Your task to perform on an android device: Open calendar and show me the first week of next month Image 0: 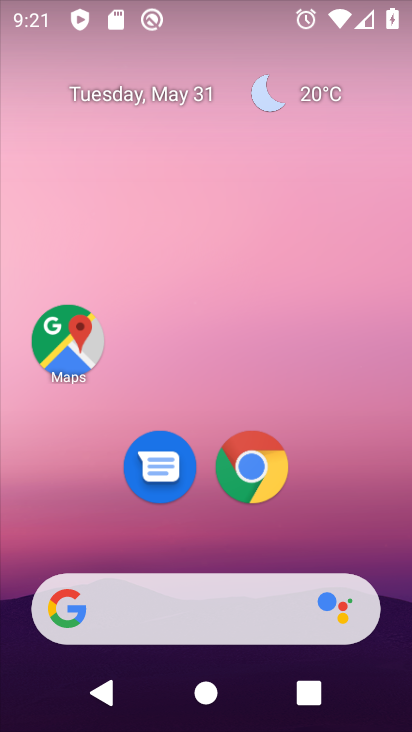
Step 0: drag from (186, 529) to (204, 128)
Your task to perform on an android device: Open calendar and show me the first week of next month Image 1: 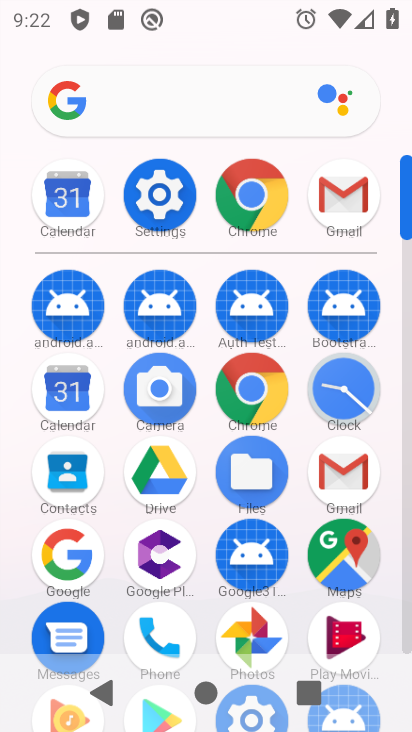
Step 1: click (84, 388)
Your task to perform on an android device: Open calendar and show me the first week of next month Image 2: 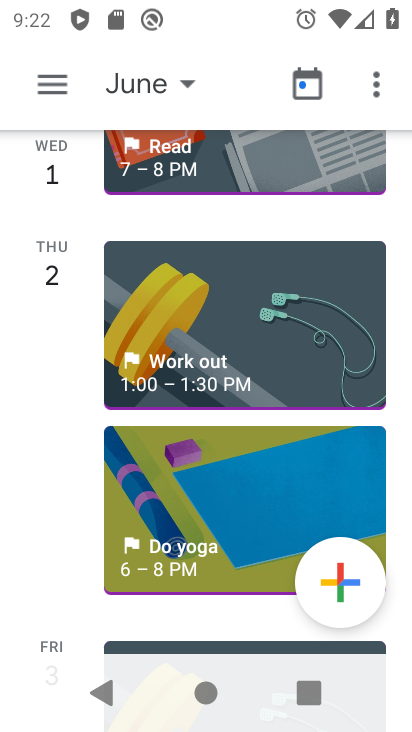
Step 2: click (177, 84)
Your task to perform on an android device: Open calendar and show me the first week of next month Image 3: 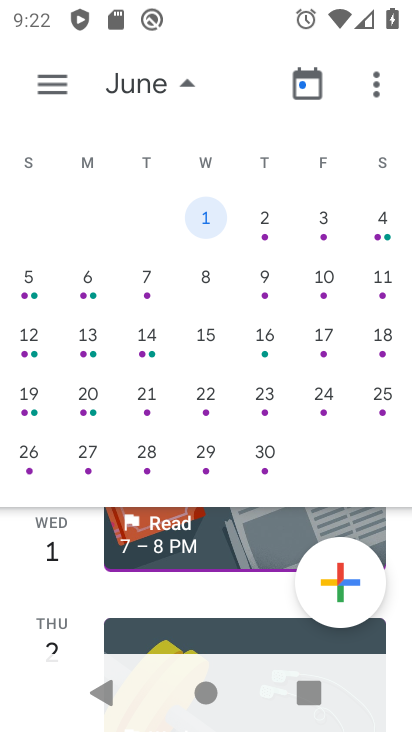
Step 3: click (265, 218)
Your task to perform on an android device: Open calendar and show me the first week of next month Image 4: 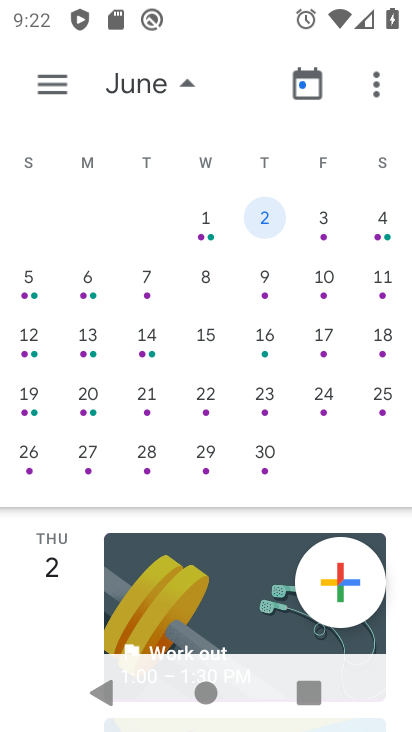
Step 4: drag from (330, 301) to (23, 322)
Your task to perform on an android device: Open calendar and show me the first week of next month Image 5: 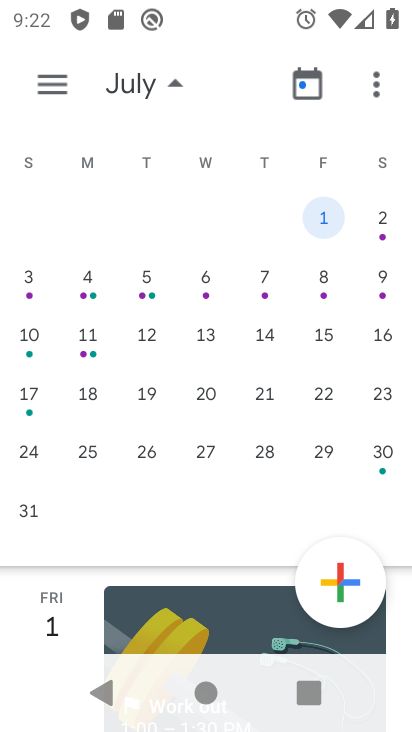
Step 5: click (374, 226)
Your task to perform on an android device: Open calendar and show me the first week of next month Image 6: 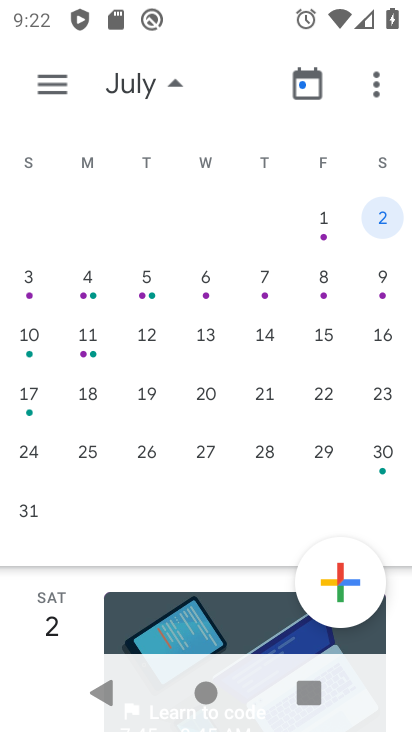
Step 6: task complete